Your task to perform on an android device: Clear the cart on newegg.com. Search for logitech g910 on newegg.com, select the first entry, add it to the cart, then select checkout. Image 0: 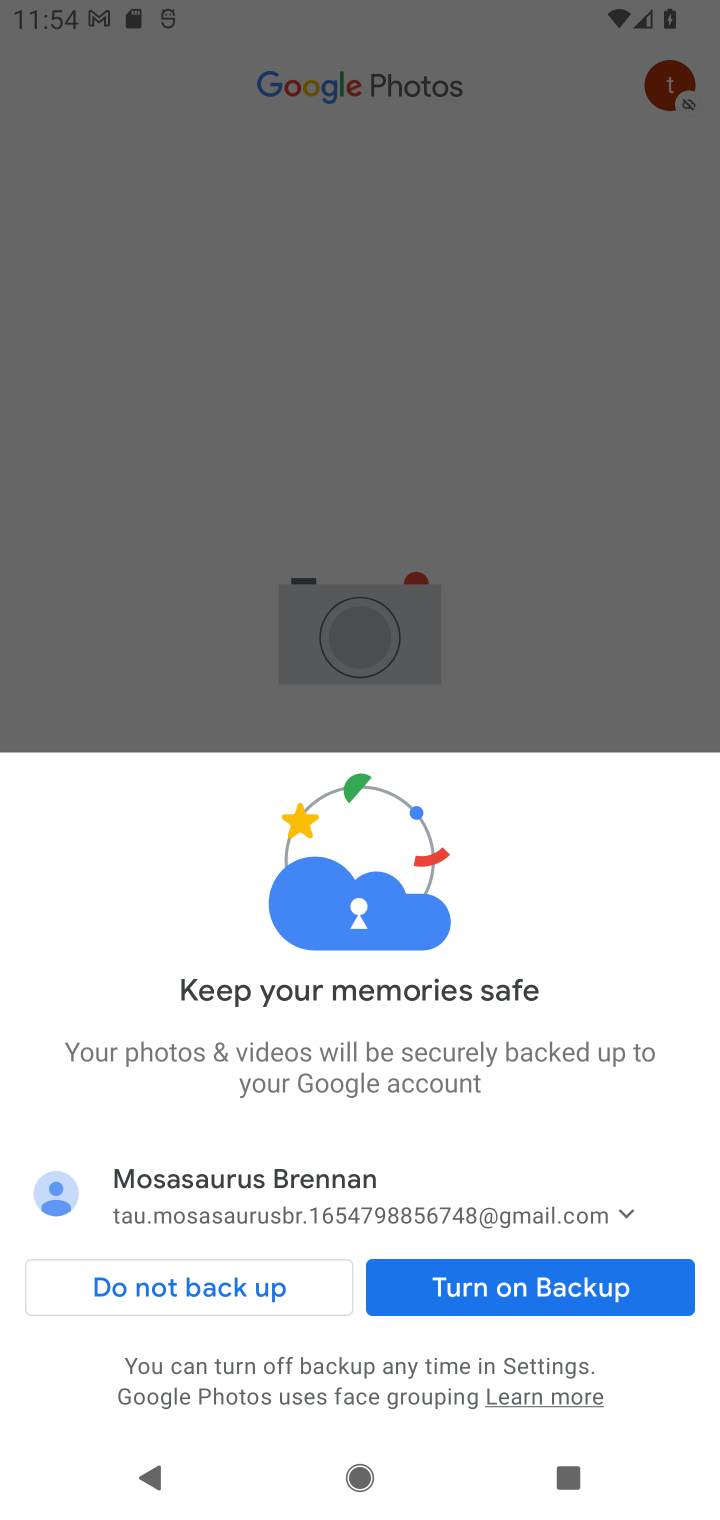
Step 0: press home button
Your task to perform on an android device: Clear the cart on newegg.com. Search for logitech g910 on newegg.com, select the first entry, add it to the cart, then select checkout. Image 1: 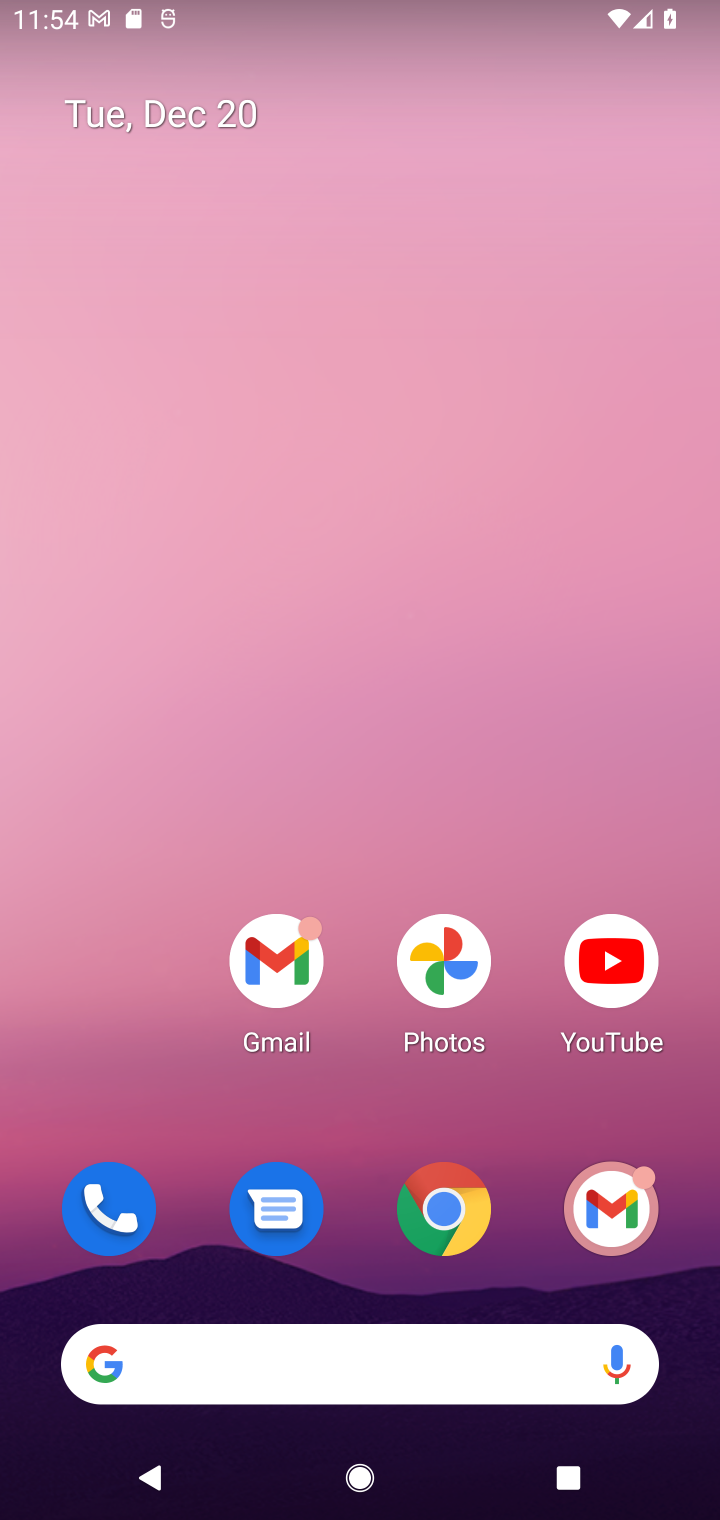
Step 1: click (447, 1216)
Your task to perform on an android device: Clear the cart on newegg.com. Search for logitech g910 on newegg.com, select the first entry, add it to the cart, then select checkout. Image 2: 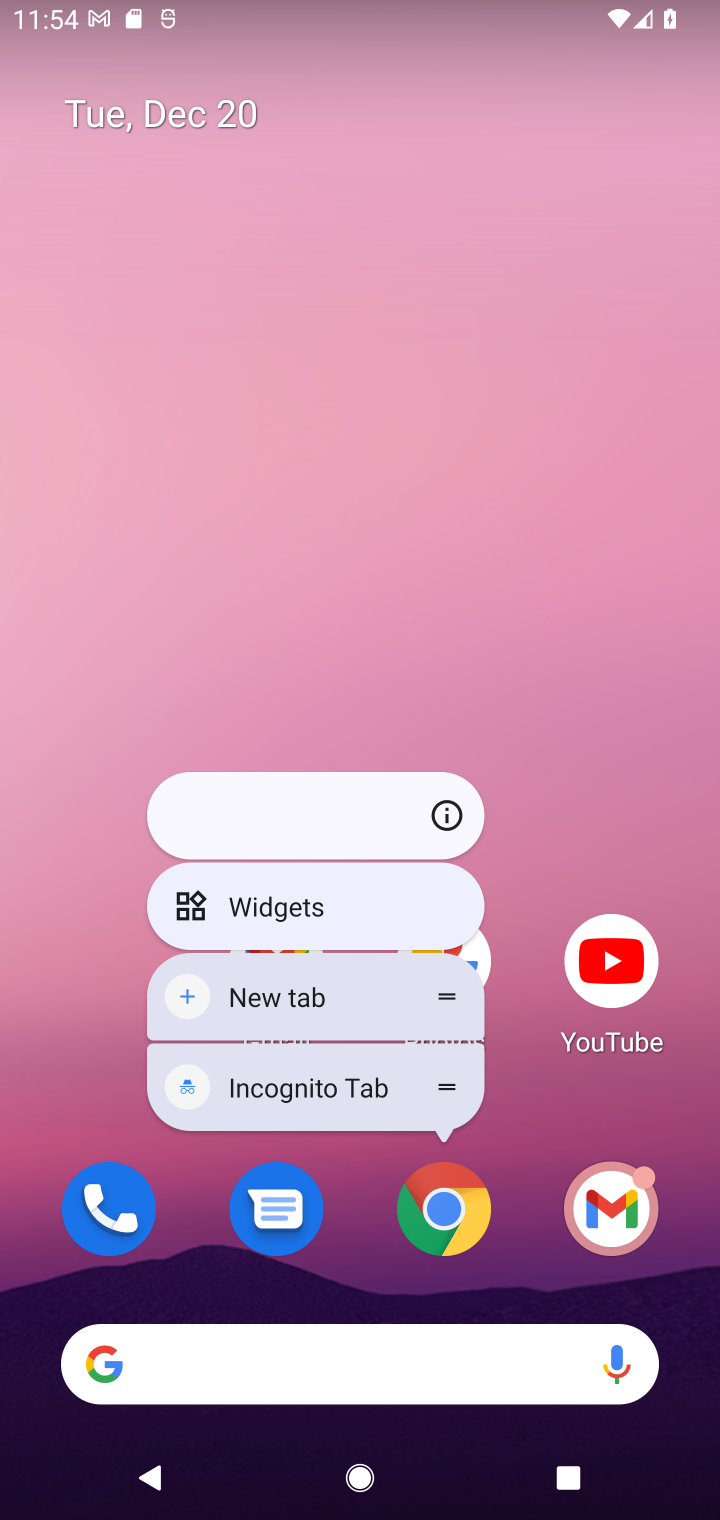
Step 2: click (447, 1216)
Your task to perform on an android device: Clear the cart on newegg.com. Search for logitech g910 on newegg.com, select the first entry, add it to the cart, then select checkout. Image 3: 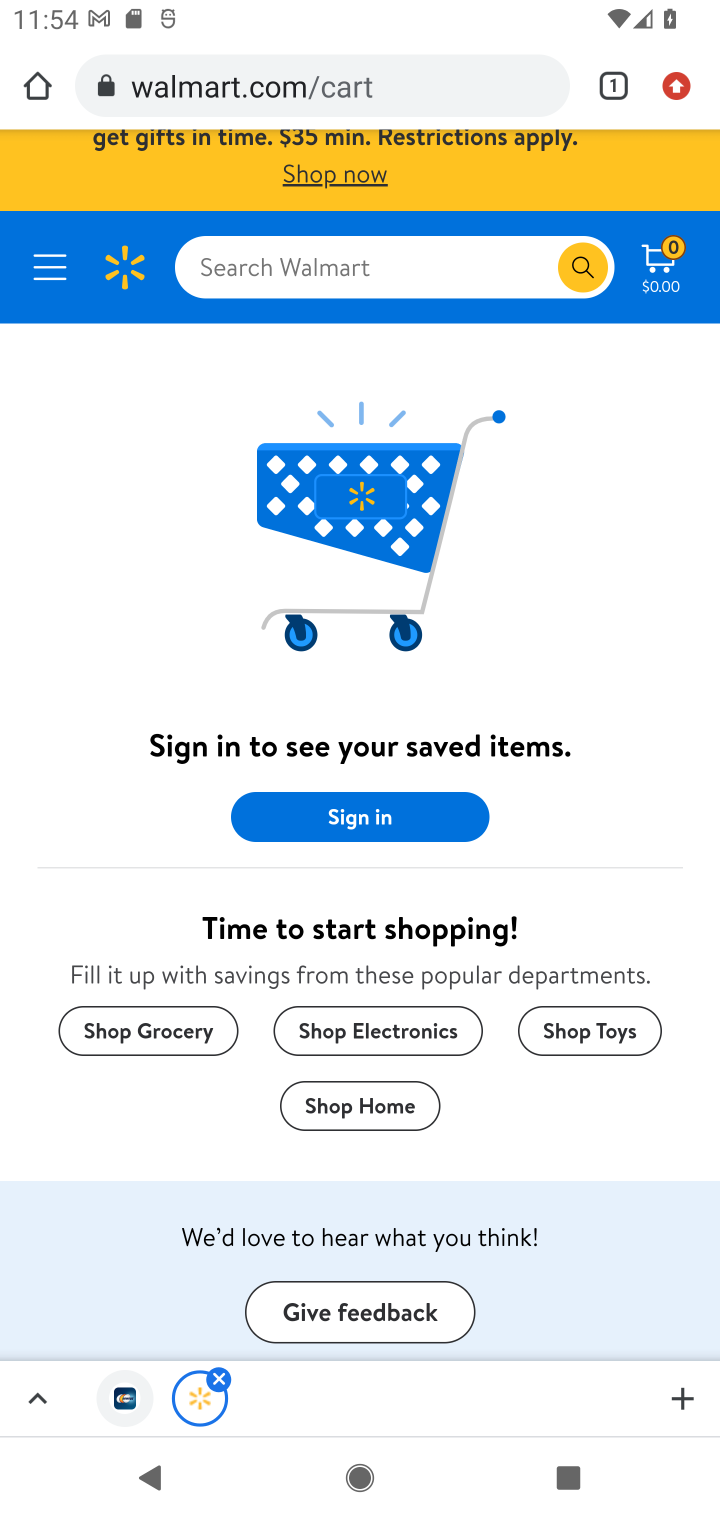
Step 3: click (242, 86)
Your task to perform on an android device: Clear the cart on newegg.com. Search for logitech g910 on newegg.com, select the first entry, add it to the cart, then select checkout. Image 4: 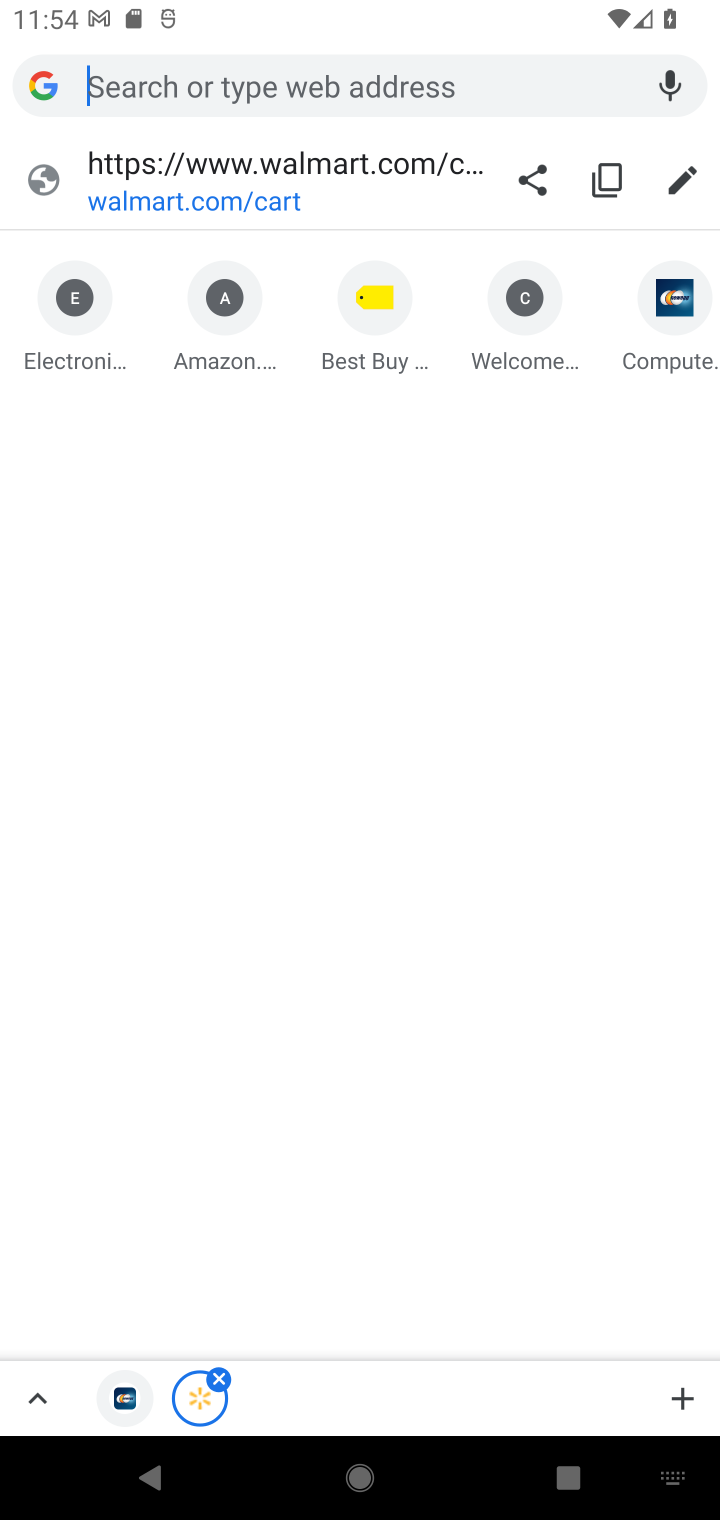
Step 4: click (669, 339)
Your task to perform on an android device: Clear the cart on newegg.com. Search for logitech g910 on newegg.com, select the first entry, add it to the cart, then select checkout. Image 5: 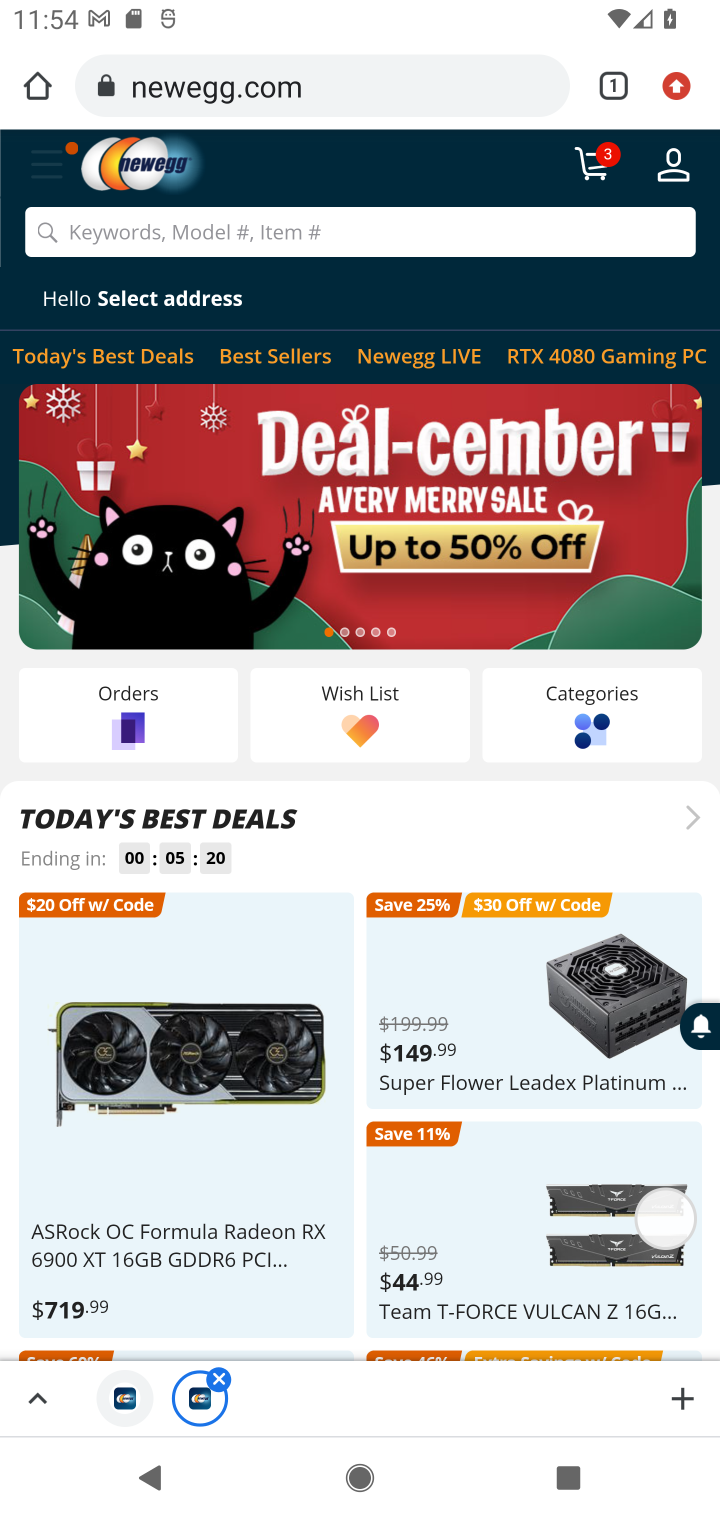
Step 5: click (594, 168)
Your task to perform on an android device: Clear the cart on newegg.com. Search for logitech g910 on newegg.com, select the first entry, add it to the cart, then select checkout. Image 6: 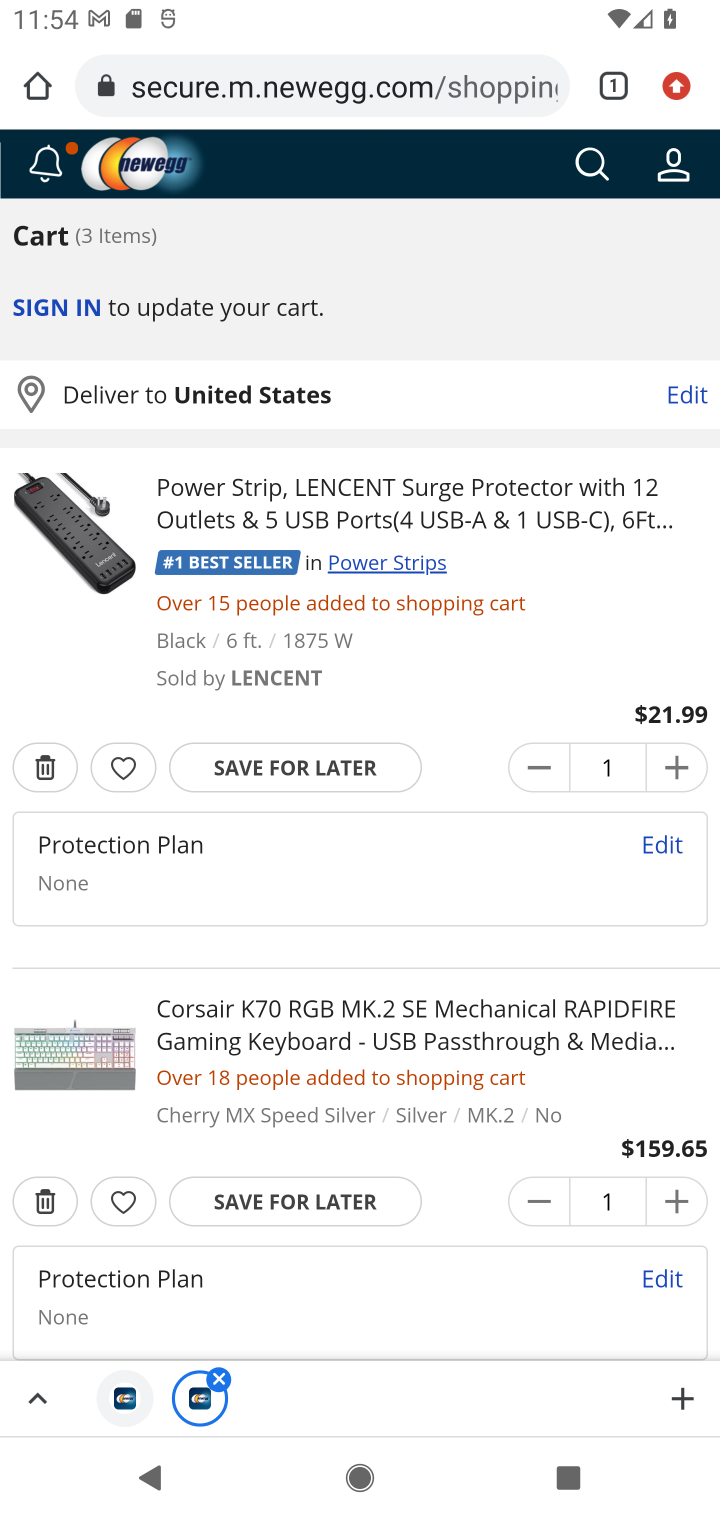
Step 6: click (40, 771)
Your task to perform on an android device: Clear the cart on newegg.com. Search for logitech g910 on newegg.com, select the first entry, add it to the cart, then select checkout. Image 7: 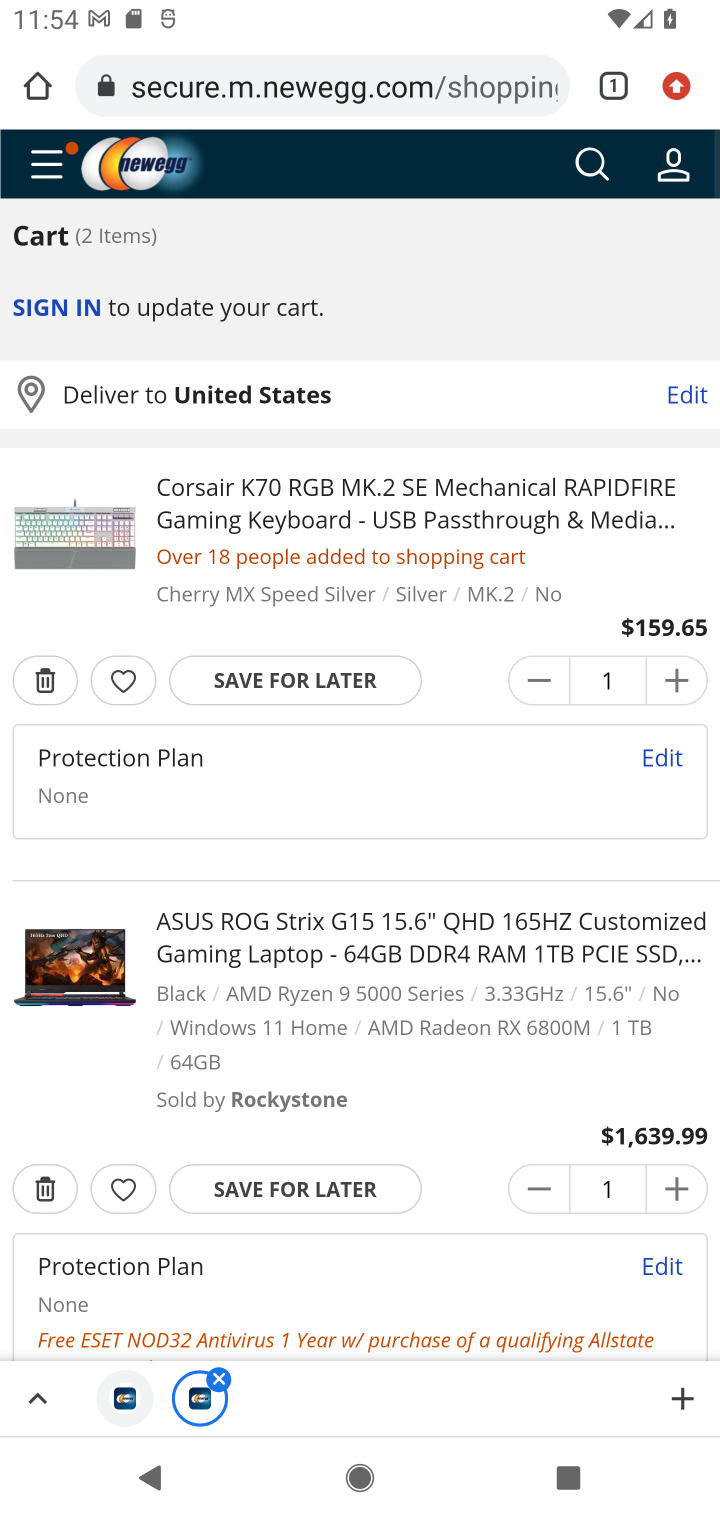
Step 7: click (54, 686)
Your task to perform on an android device: Clear the cart on newegg.com. Search for logitech g910 on newegg.com, select the first entry, add it to the cart, then select checkout. Image 8: 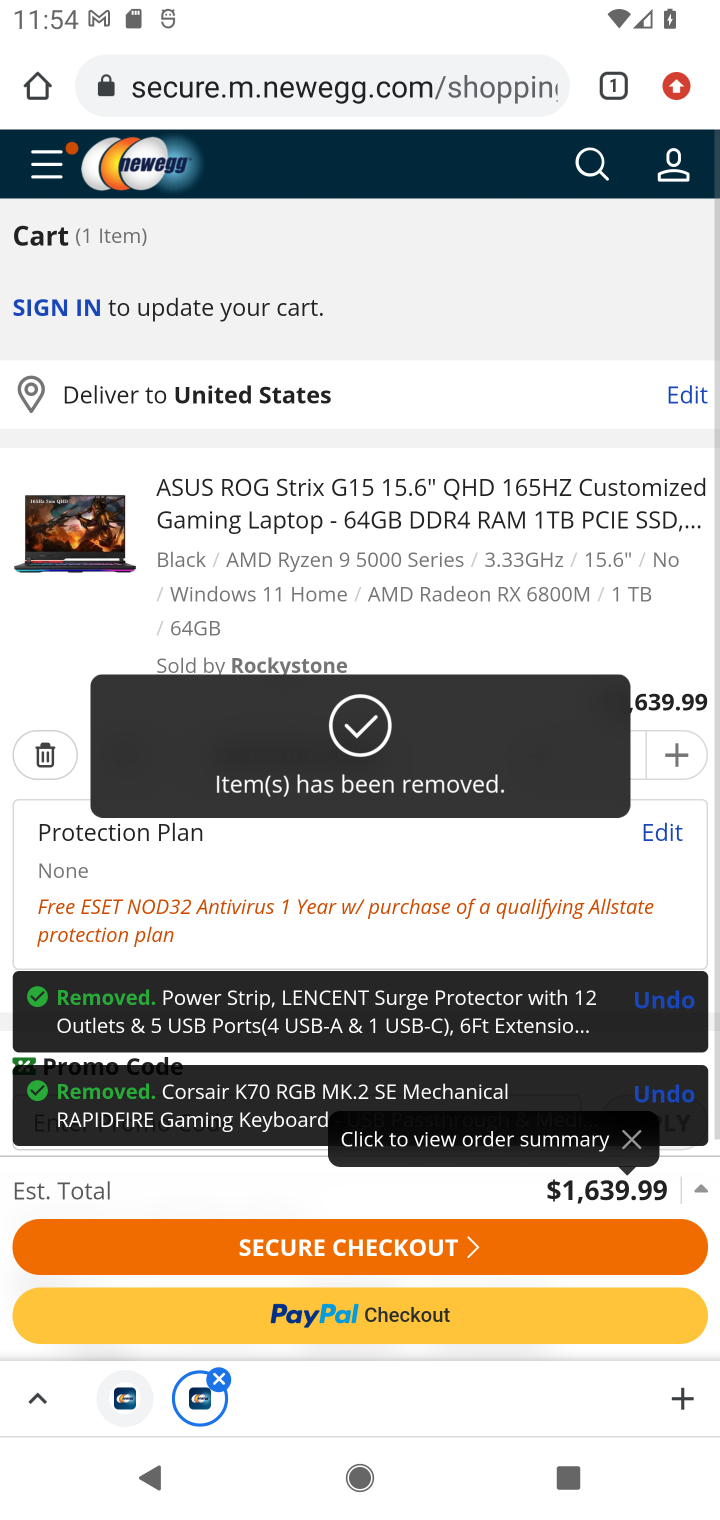
Step 8: click (47, 755)
Your task to perform on an android device: Clear the cart on newegg.com. Search for logitech g910 on newegg.com, select the first entry, add it to the cart, then select checkout. Image 9: 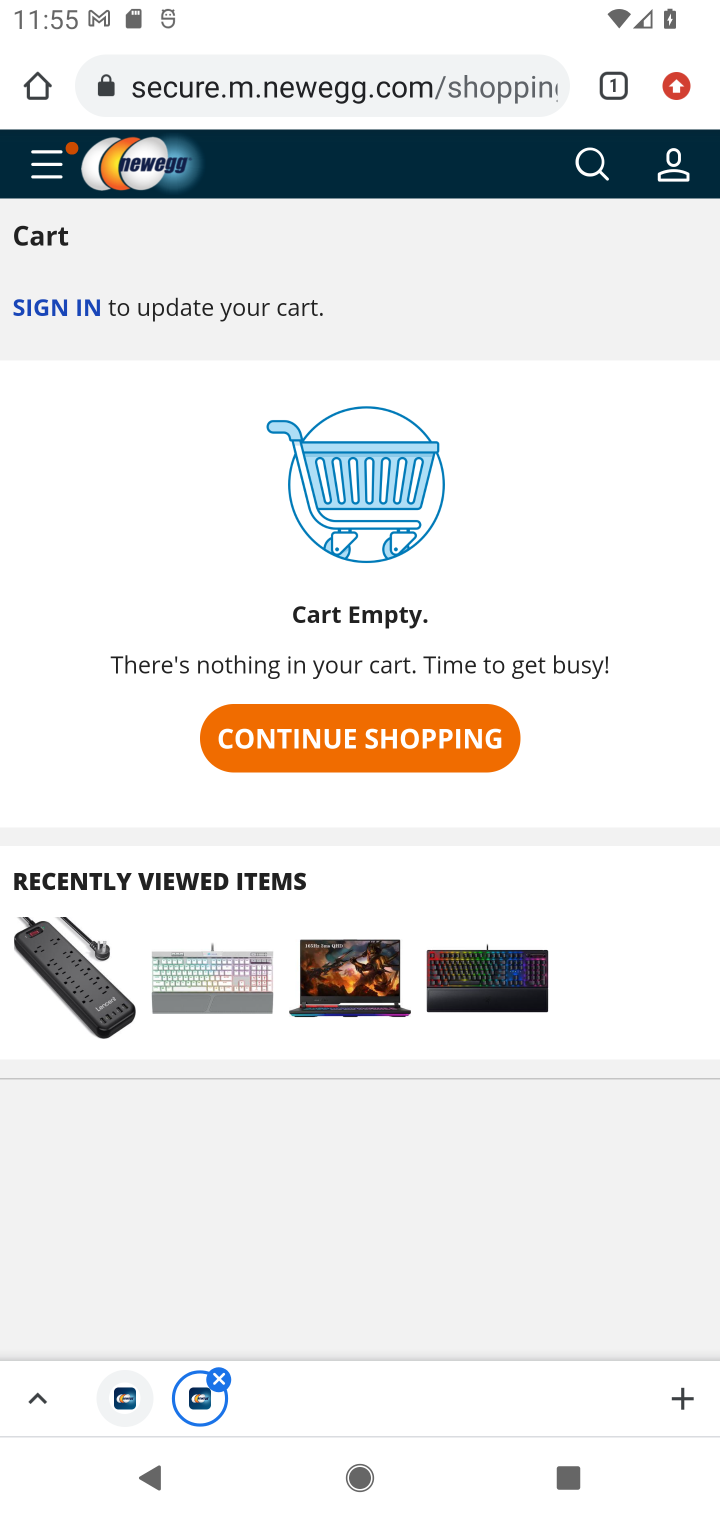
Step 9: click (574, 170)
Your task to perform on an android device: Clear the cart on newegg.com. Search for logitech g910 on newegg.com, select the first entry, add it to the cart, then select checkout. Image 10: 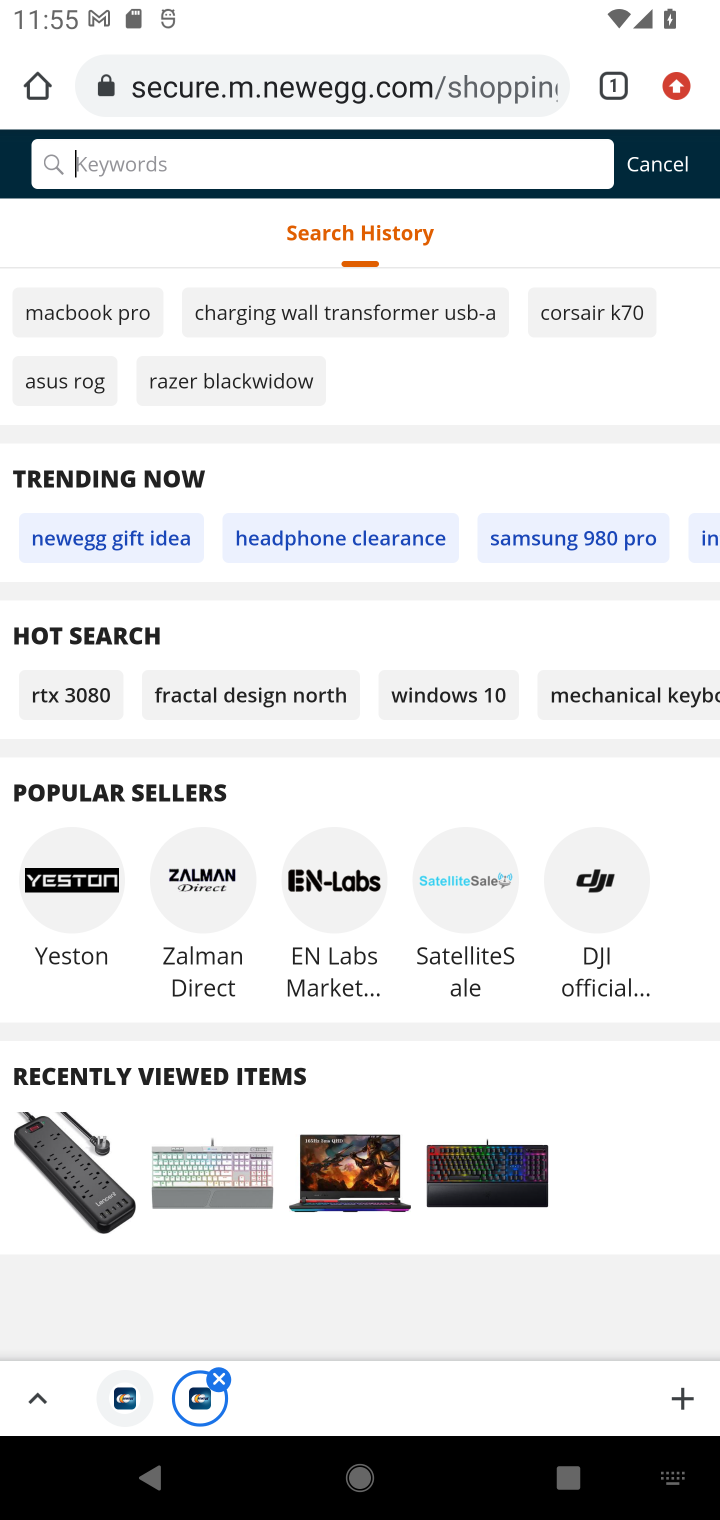
Step 10: type "logitech g910"
Your task to perform on an android device: Clear the cart on newegg.com. Search for logitech g910 on newegg.com, select the first entry, add it to the cart, then select checkout. Image 11: 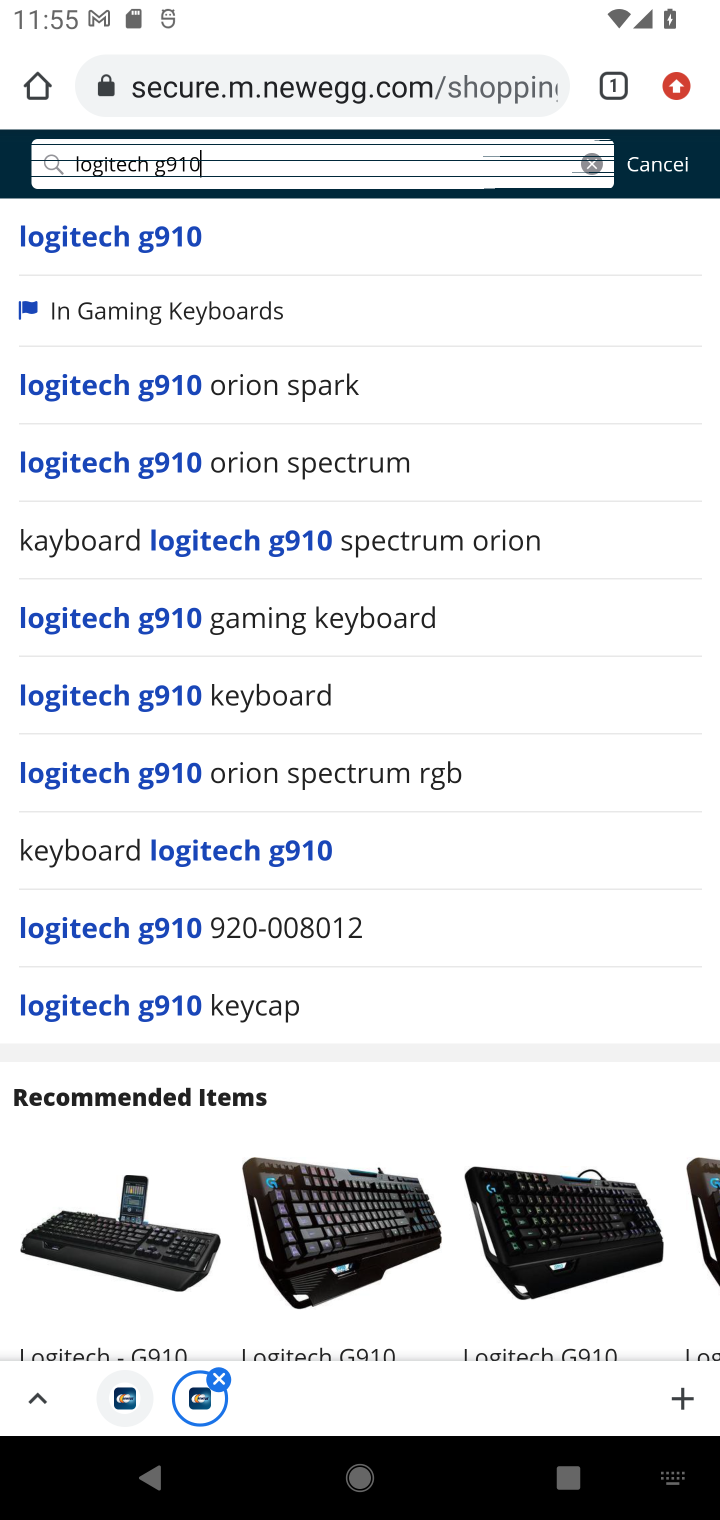
Step 11: click (120, 257)
Your task to perform on an android device: Clear the cart on newegg.com. Search for logitech g910 on newegg.com, select the first entry, add it to the cart, then select checkout. Image 12: 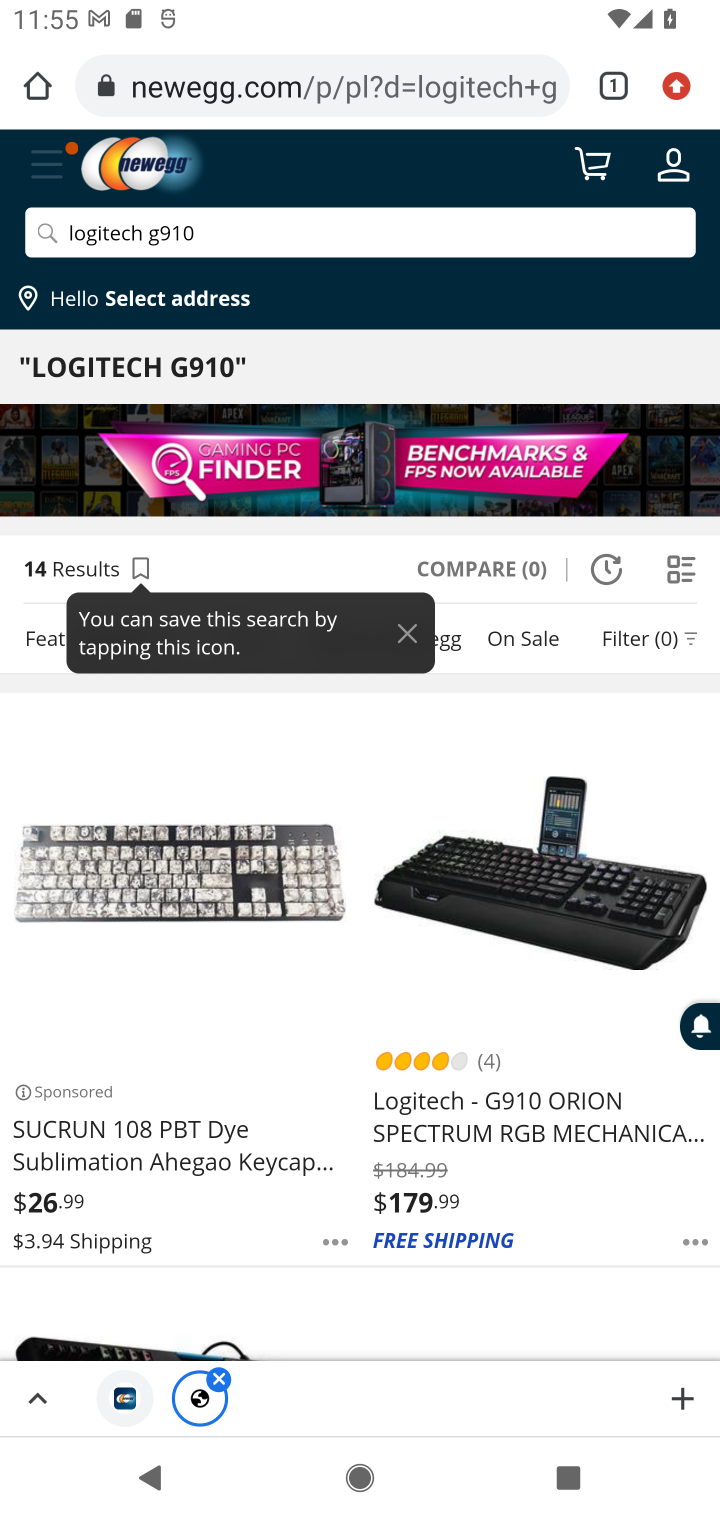
Step 12: task complete